Your task to perform on an android device: change notification settings in the gmail app Image 0: 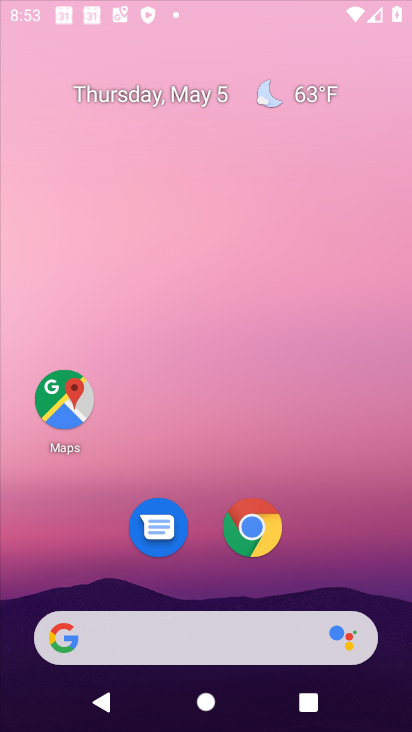
Step 0: drag from (255, 709) to (302, 16)
Your task to perform on an android device: change notification settings in the gmail app Image 1: 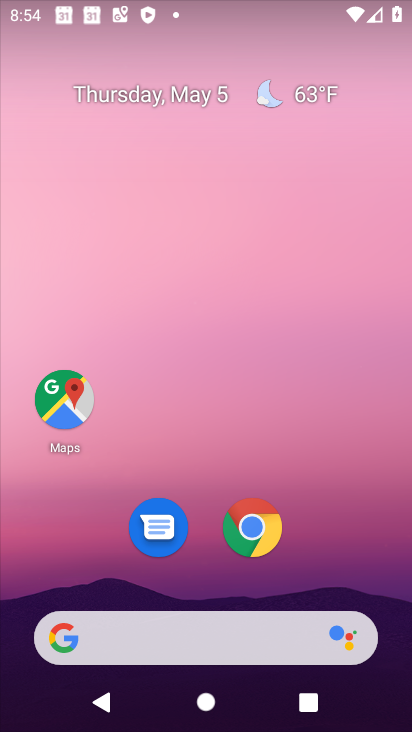
Step 1: press home button
Your task to perform on an android device: change notification settings in the gmail app Image 2: 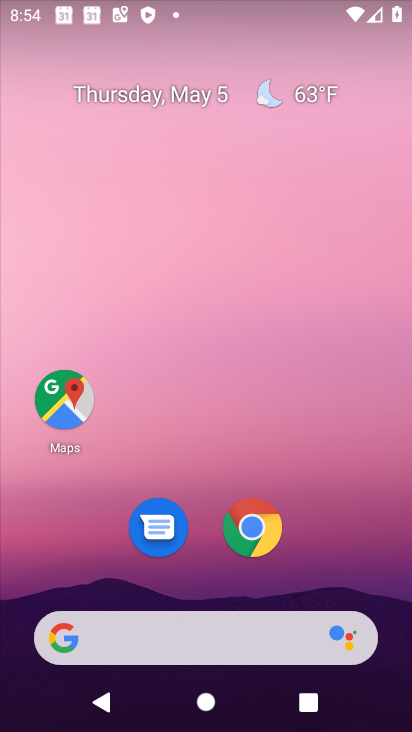
Step 2: drag from (251, 698) to (313, 2)
Your task to perform on an android device: change notification settings in the gmail app Image 3: 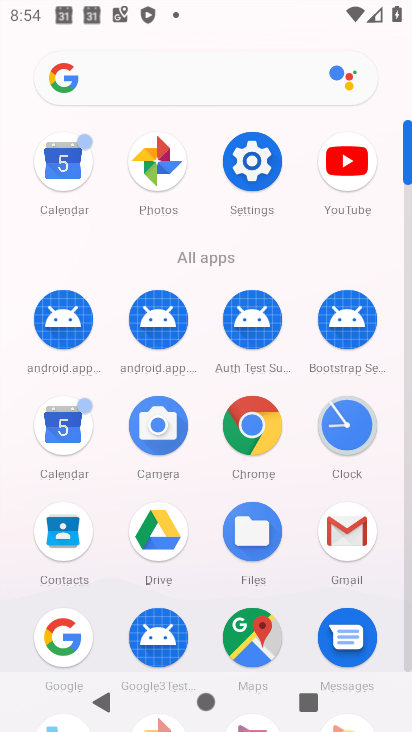
Step 3: click (351, 537)
Your task to perform on an android device: change notification settings in the gmail app Image 4: 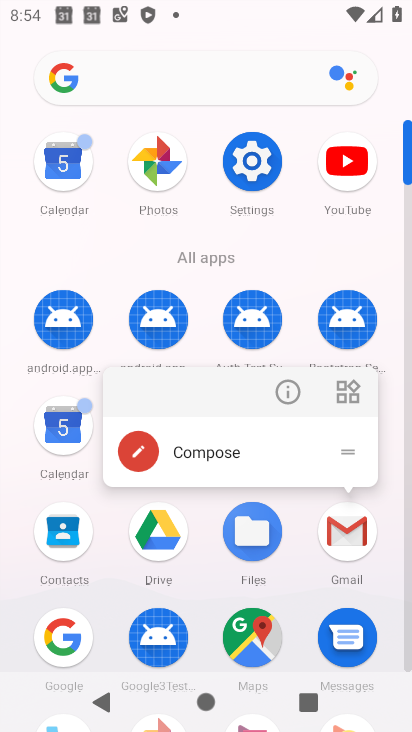
Step 4: click (275, 385)
Your task to perform on an android device: change notification settings in the gmail app Image 5: 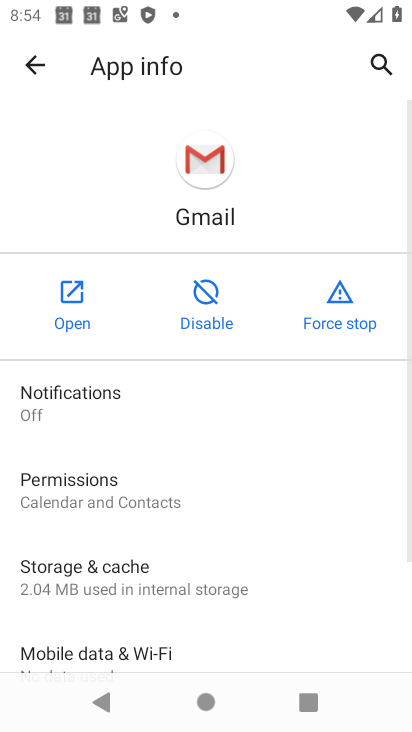
Step 5: click (172, 399)
Your task to perform on an android device: change notification settings in the gmail app Image 6: 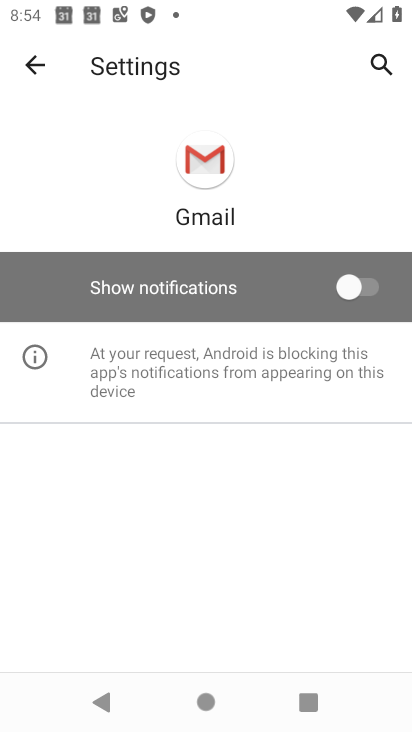
Step 6: click (353, 282)
Your task to perform on an android device: change notification settings in the gmail app Image 7: 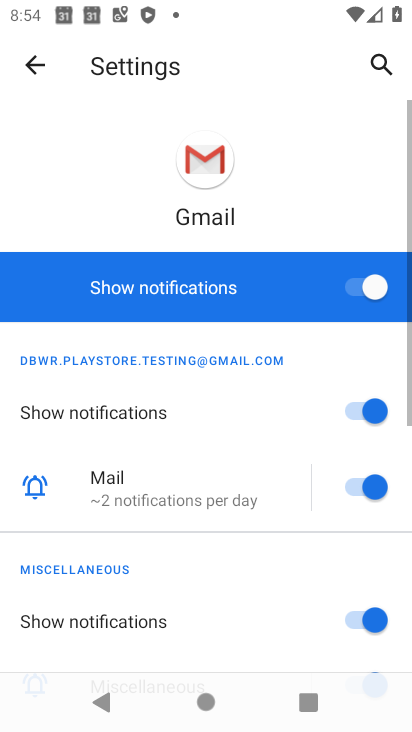
Step 7: task complete